Your task to perform on an android device: manage bookmarks in the chrome app Image 0: 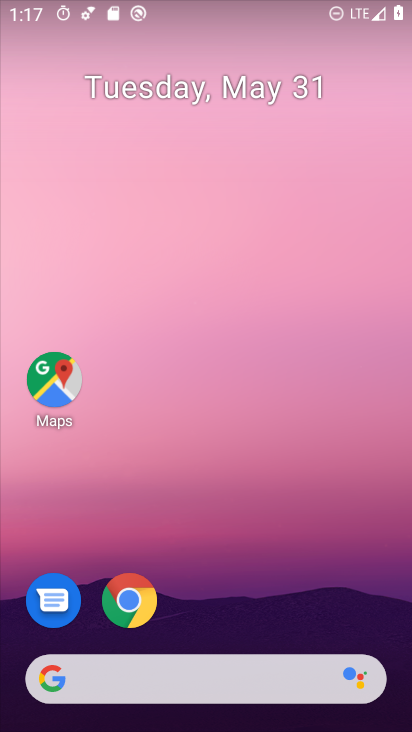
Step 0: click (128, 597)
Your task to perform on an android device: manage bookmarks in the chrome app Image 1: 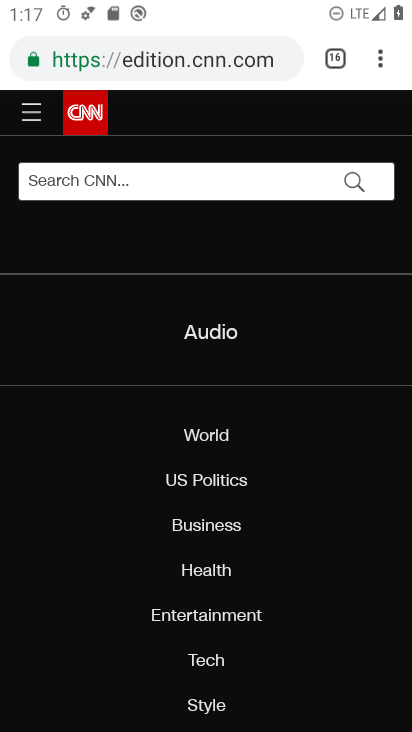
Step 1: click (378, 63)
Your task to perform on an android device: manage bookmarks in the chrome app Image 2: 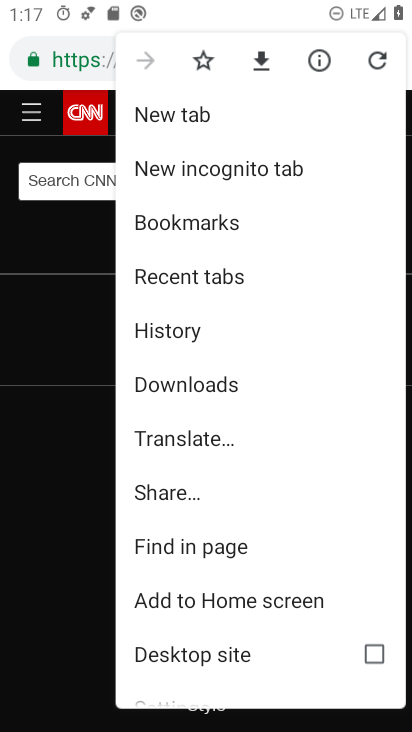
Step 2: click (218, 218)
Your task to perform on an android device: manage bookmarks in the chrome app Image 3: 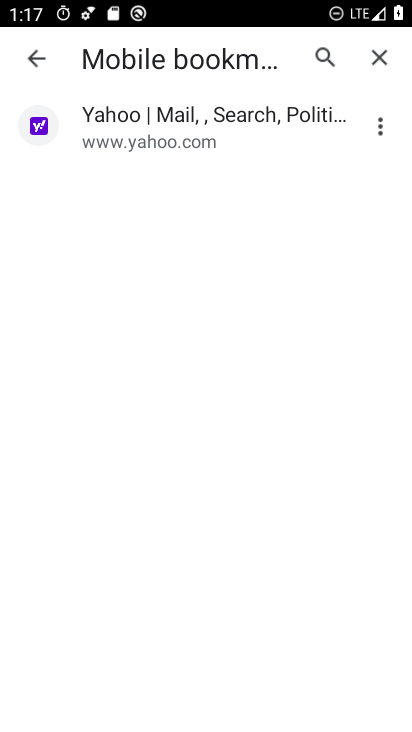
Step 3: click (381, 131)
Your task to perform on an android device: manage bookmarks in the chrome app Image 4: 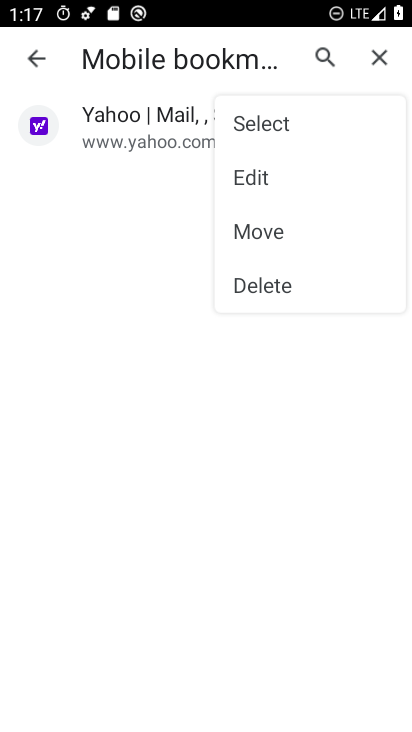
Step 4: click (261, 178)
Your task to perform on an android device: manage bookmarks in the chrome app Image 5: 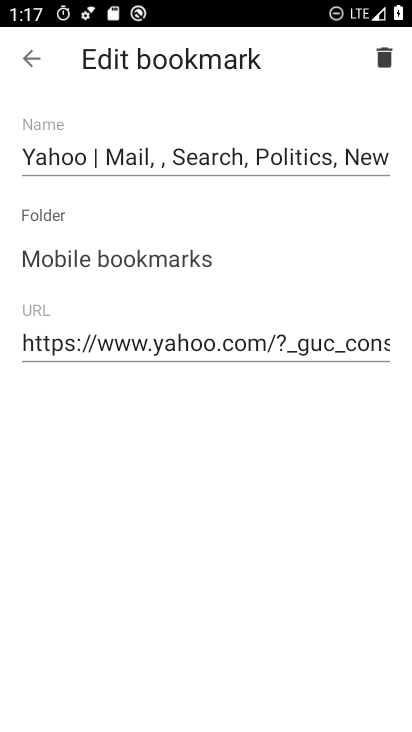
Step 5: click (233, 157)
Your task to perform on an android device: manage bookmarks in the chrome app Image 6: 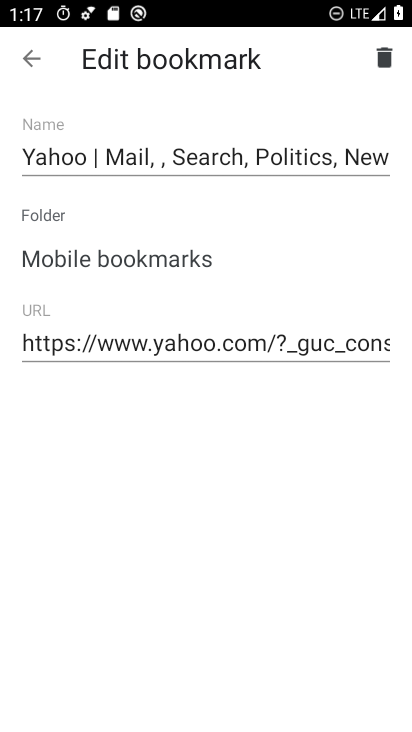
Step 6: click (233, 157)
Your task to perform on an android device: manage bookmarks in the chrome app Image 7: 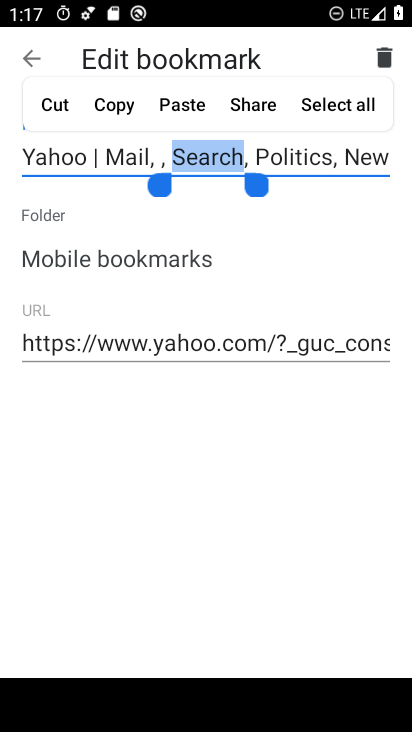
Step 7: click (53, 104)
Your task to perform on an android device: manage bookmarks in the chrome app Image 8: 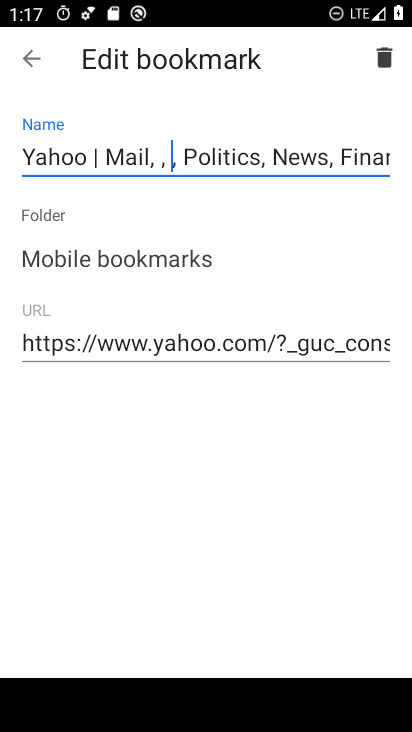
Step 8: click (26, 50)
Your task to perform on an android device: manage bookmarks in the chrome app Image 9: 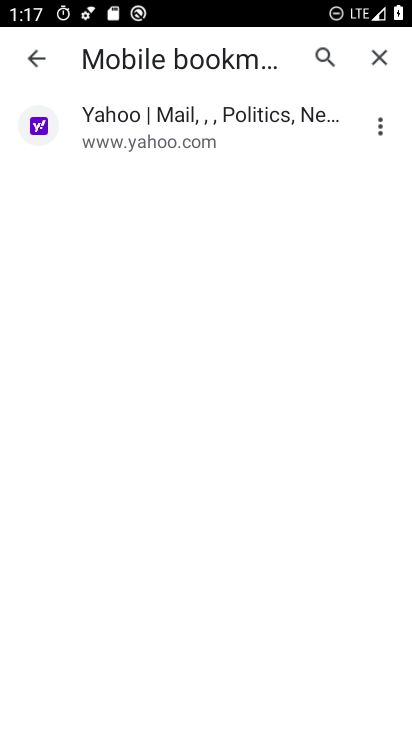
Step 9: task complete